Your task to perform on an android device: Open Google Maps and go to "Timeline" Image 0: 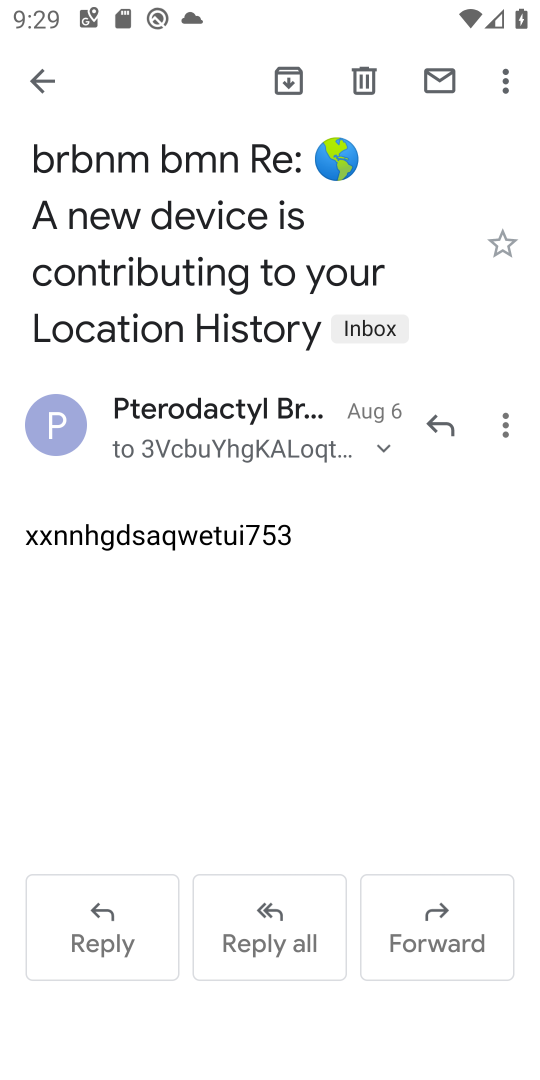
Step 0: press home button
Your task to perform on an android device: Open Google Maps and go to "Timeline" Image 1: 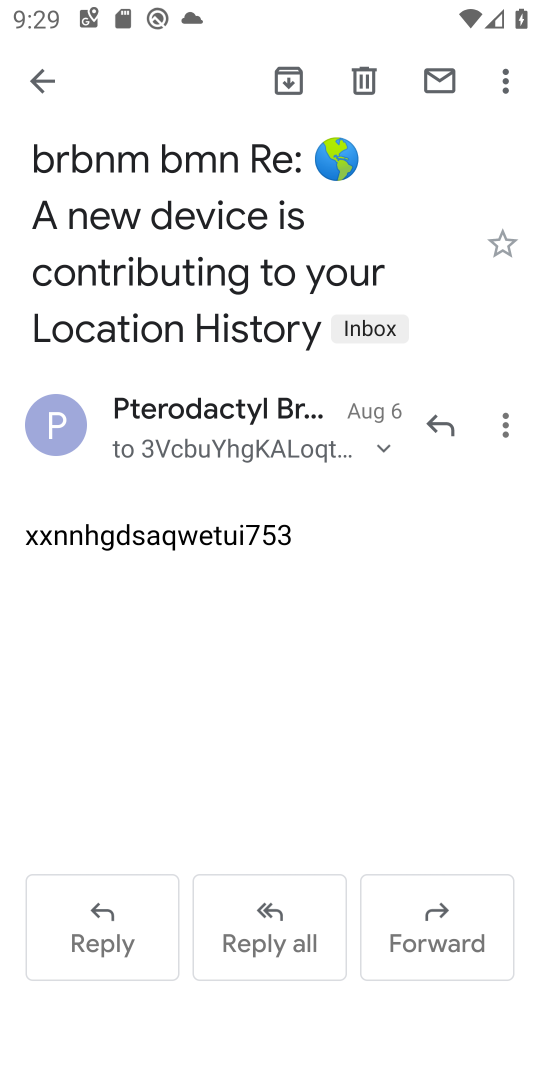
Step 1: press home button
Your task to perform on an android device: Open Google Maps and go to "Timeline" Image 2: 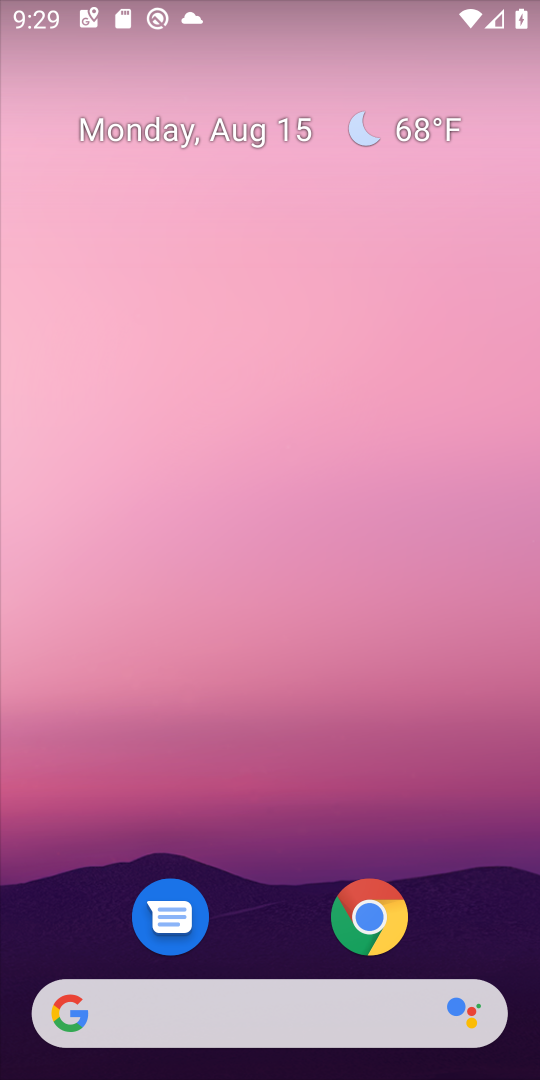
Step 2: drag from (298, 864) to (370, 1)
Your task to perform on an android device: Open Google Maps and go to "Timeline" Image 3: 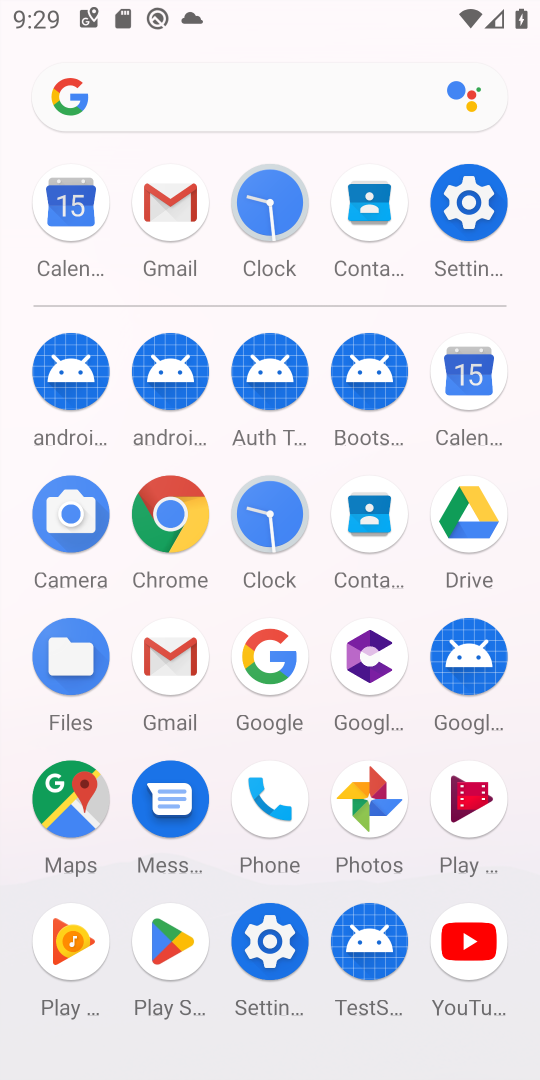
Step 3: click (76, 805)
Your task to perform on an android device: Open Google Maps and go to "Timeline" Image 4: 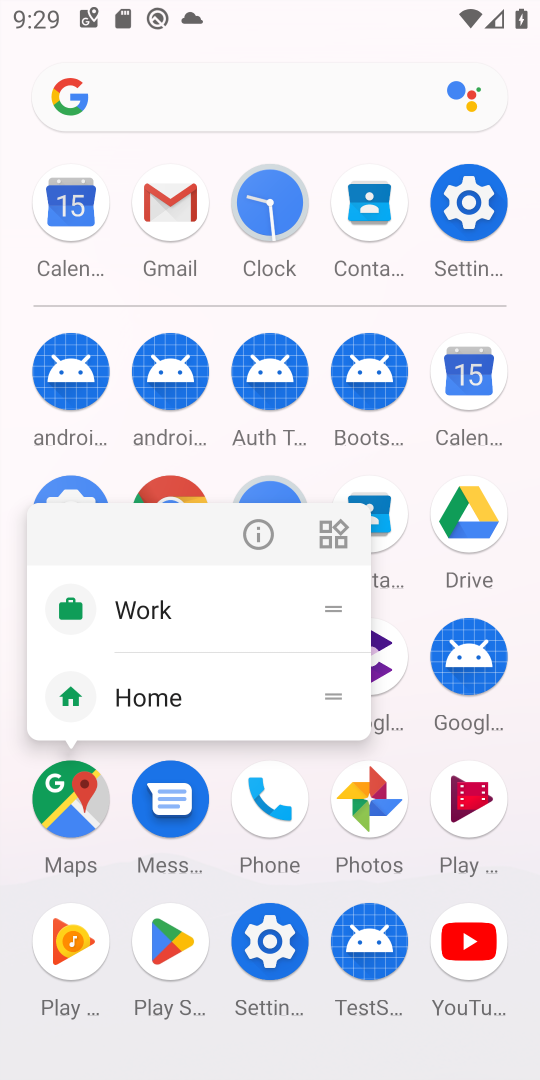
Step 4: click (75, 798)
Your task to perform on an android device: Open Google Maps and go to "Timeline" Image 5: 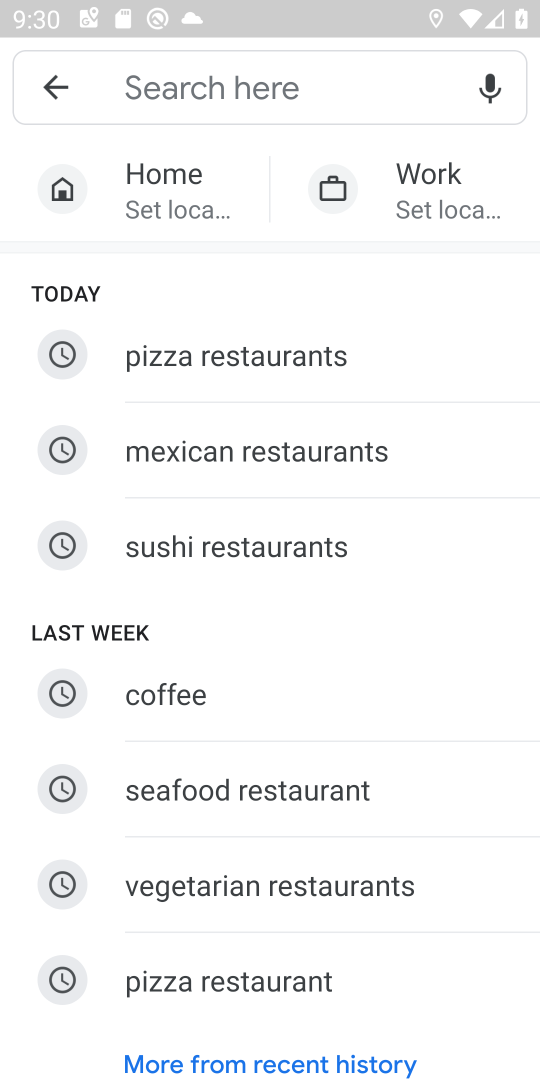
Step 5: click (57, 79)
Your task to perform on an android device: Open Google Maps and go to "Timeline" Image 6: 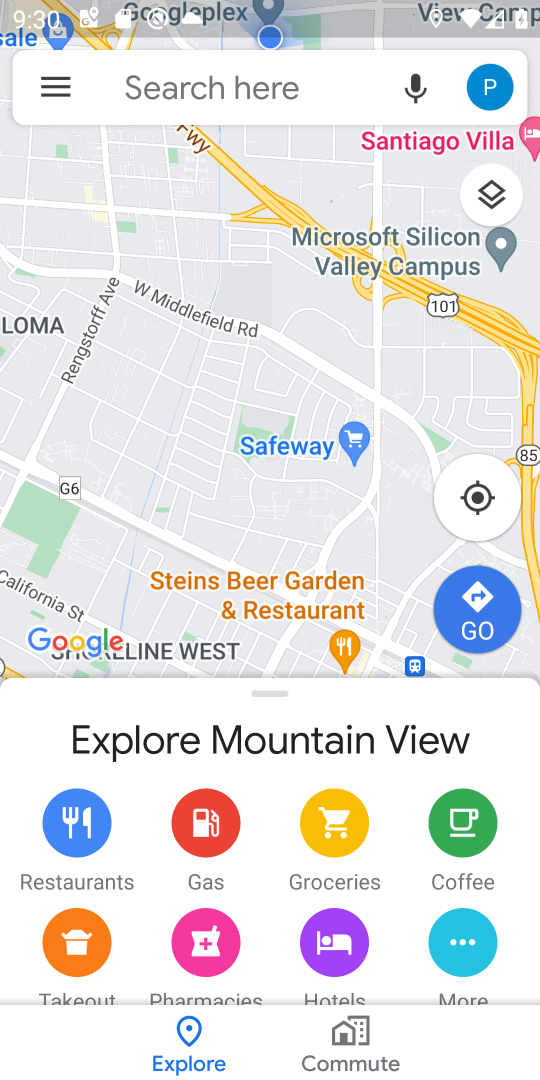
Step 6: click (57, 80)
Your task to perform on an android device: Open Google Maps and go to "Timeline" Image 7: 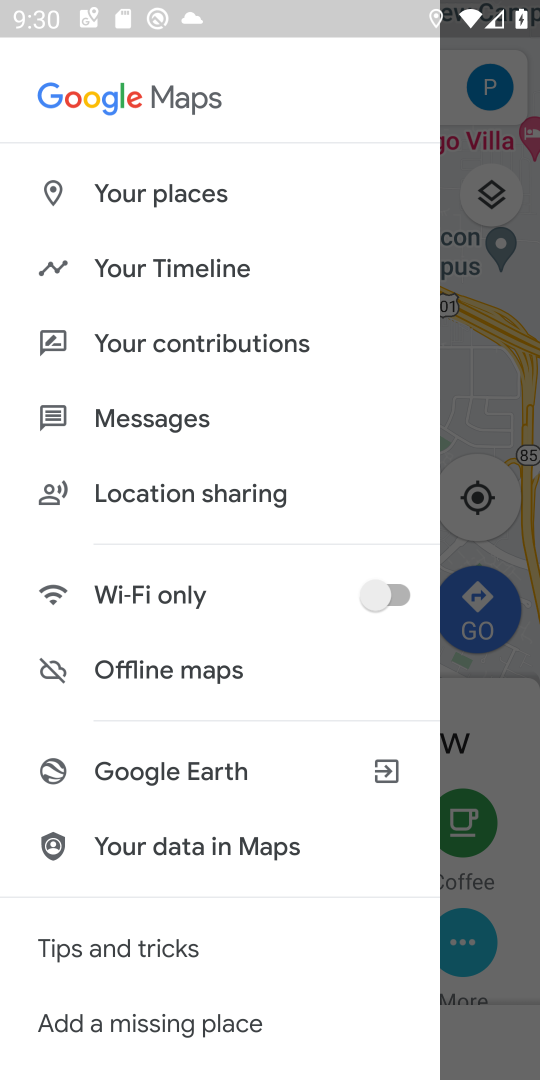
Step 7: click (198, 265)
Your task to perform on an android device: Open Google Maps and go to "Timeline" Image 8: 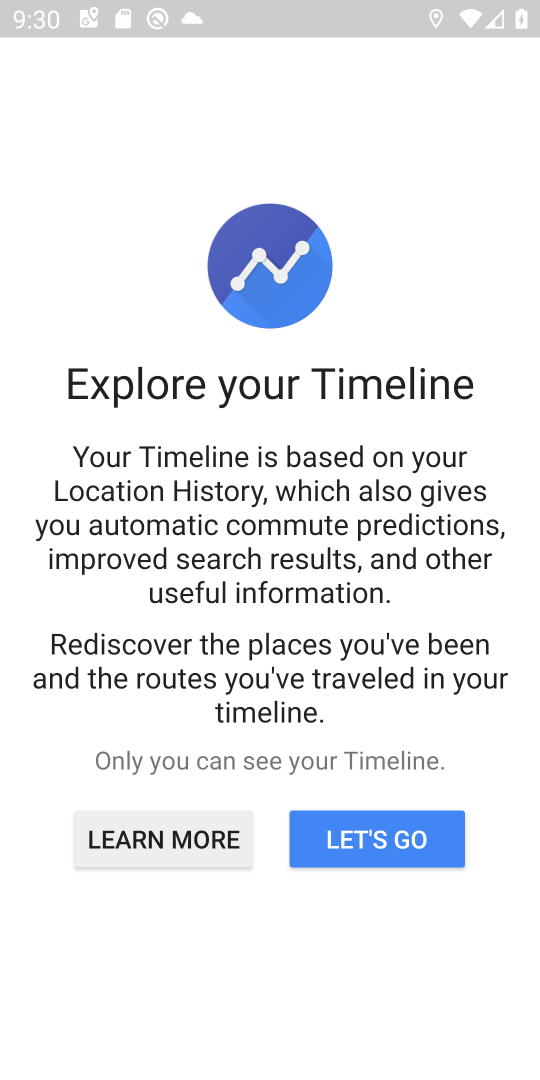
Step 8: click (418, 834)
Your task to perform on an android device: Open Google Maps and go to "Timeline" Image 9: 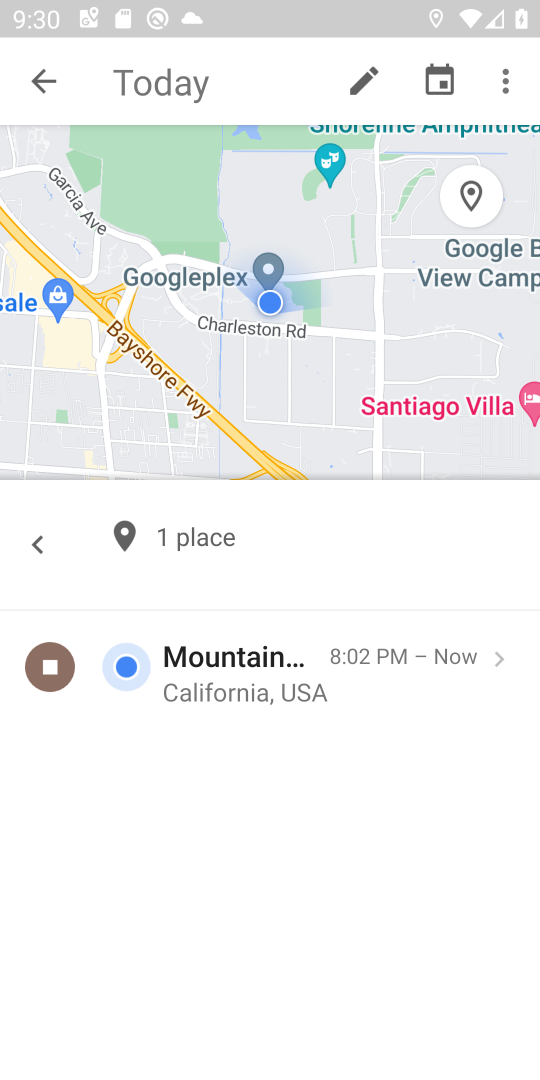
Step 9: task complete